Your task to perform on an android device: Turn on the flashlight Image 0: 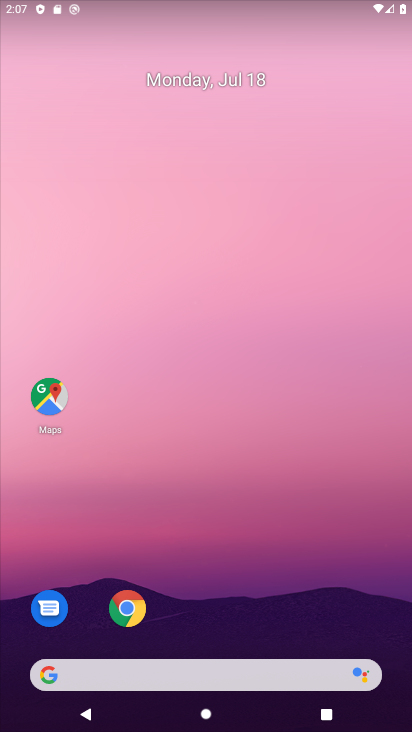
Step 0: drag from (295, 619) to (252, 251)
Your task to perform on an android device: Turn on the flashlight Image 1: 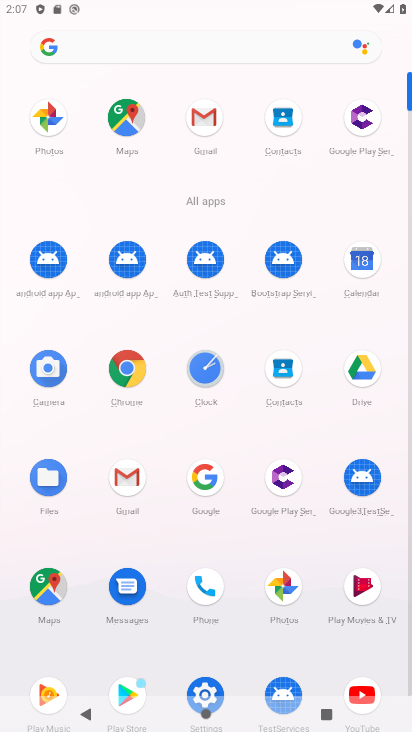
Step 1: click (202, 685)
Your task to perform on an android device: Turn on the flashlight Image 2: 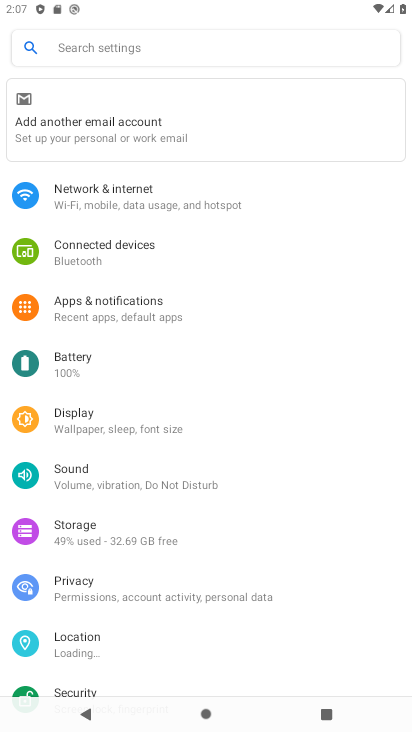
Step 2: task complete